Your task to perform on an android device: Open privacy settings Image 0: 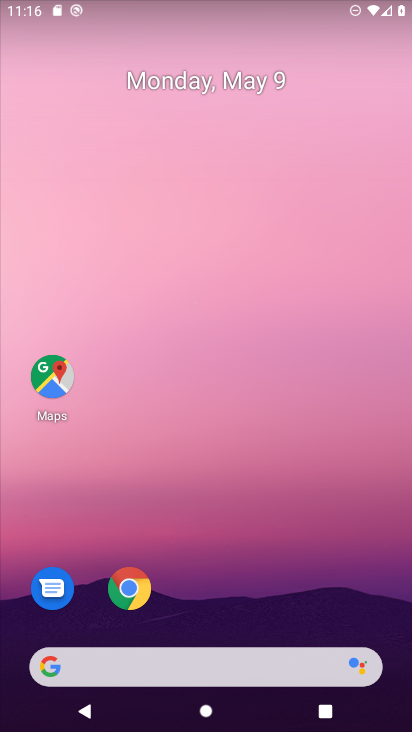
Step 0: drag from (296, 563) to (262, 125)
Your task to perform on an android device: Open privacy settings Image 1: 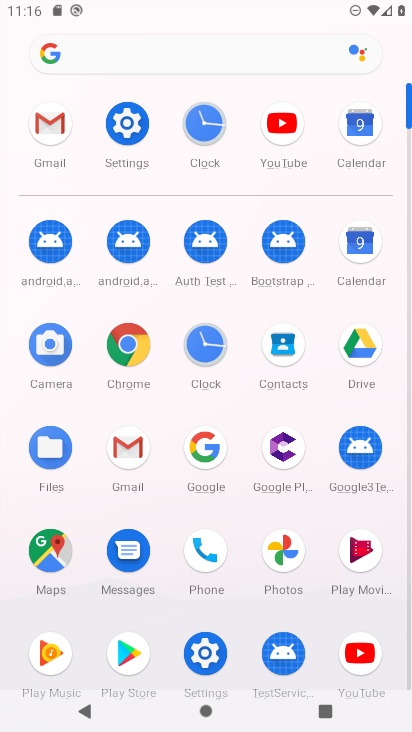
Step 1: click (131, 142)
Your task to perform on an android device: Open privacy settings Image 2: 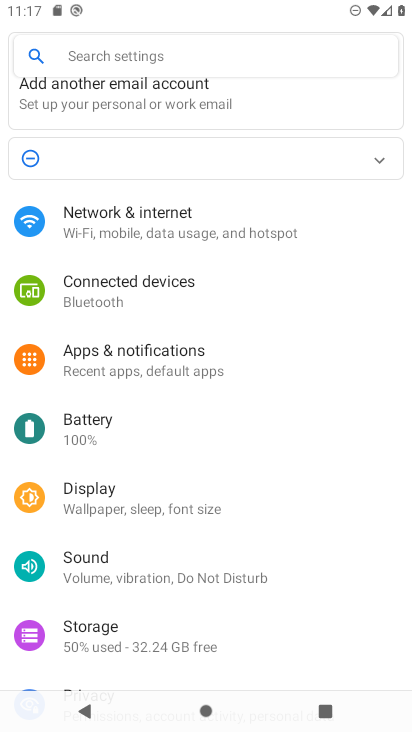
Step 2: drag from (200, 575) to (194, 462)
Your task to perform on an android device: Open privacy settings Image 3: 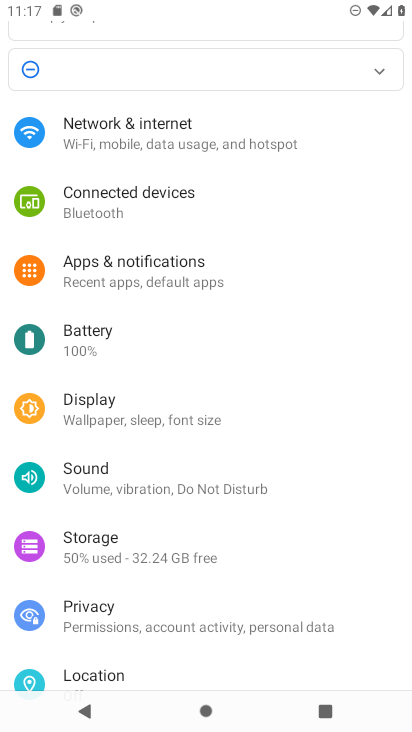
Step 3: click (175, 616)
Your task to perform on an android device: Open privacy settings Image 4: 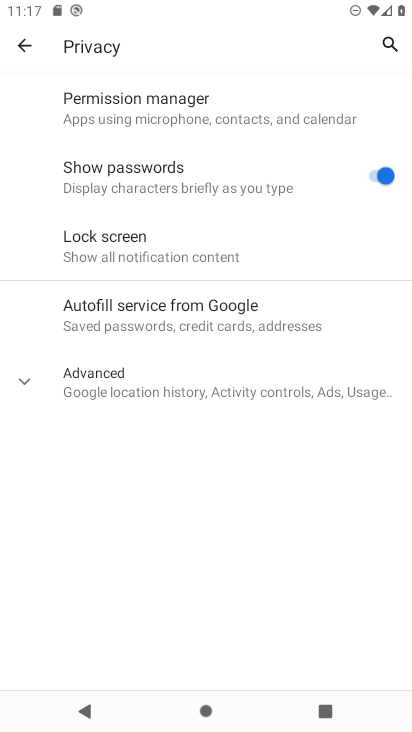
Step 4: task complete